Your task to perform on an android device: check data usage Image 0: 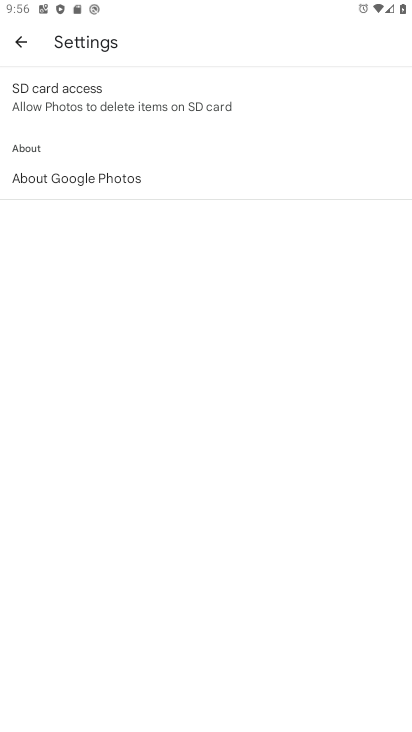
Step 0: press home button
Your task to perform on an android device: check data usage Image 1: 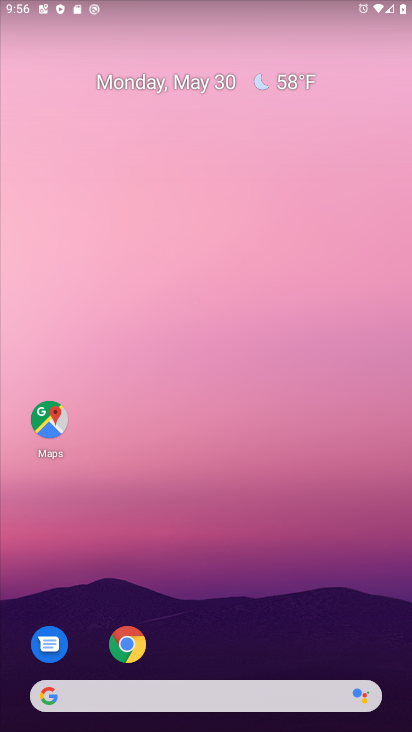
Step 1: drag from (392, 625) to (319, 12)
Your task to perform on an android device: check data usage Image 2: 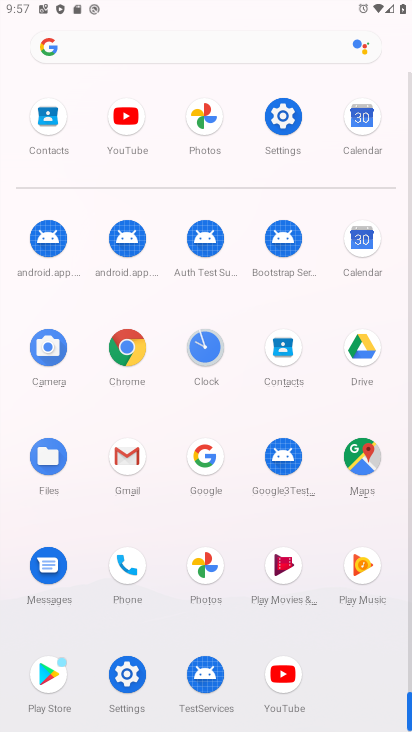
Step 2: click (126, 672)
Your task to perform on an android device: check data usage Image 3: 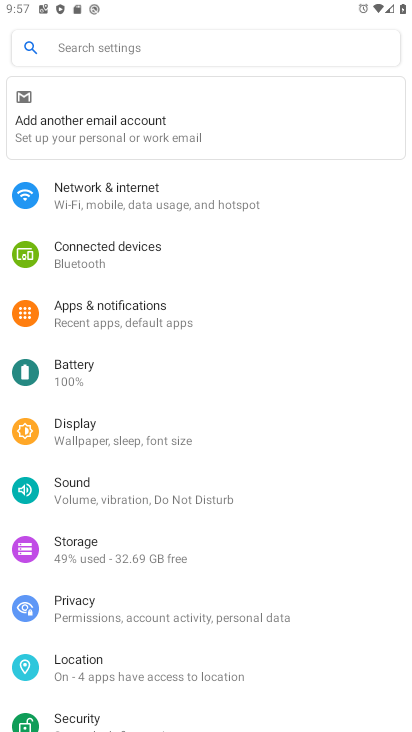
Step 3: click (98, 183)
Your task to perform on an android device: check data usage Image 4: 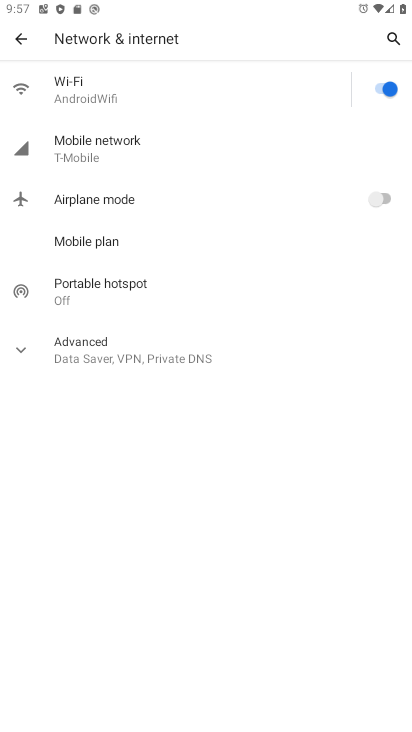
Step 4: click (98, 127)
Your task to perform on an android device: check data usage Image 5: 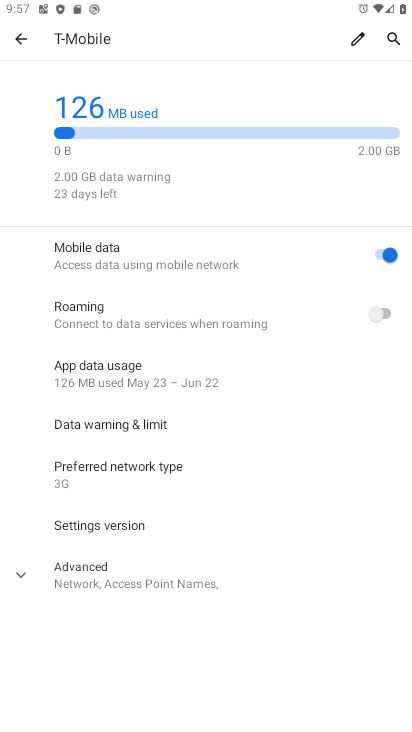
Step 5: task complete